Your task to perform on an android device: Go to privacy settings Image 0: 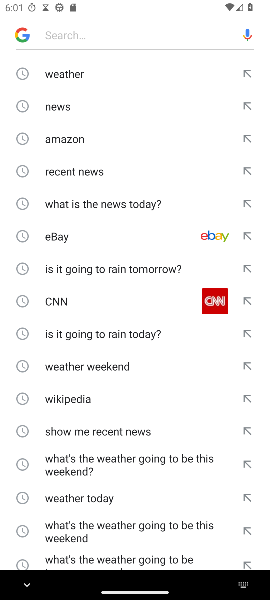
Step 0: press home button
Your task to perform on an android device: Go to privacy settings Image 1: 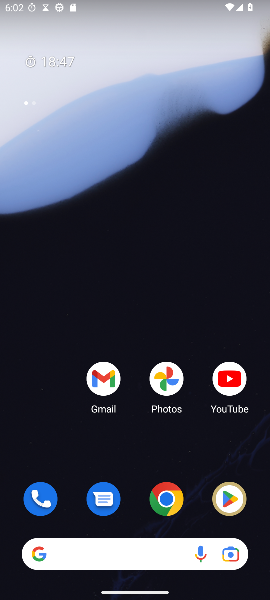
Step 1: drag from (158, 462) to (155, 91)
Your task to perform on an android device: Go to privacy settings Image 2: 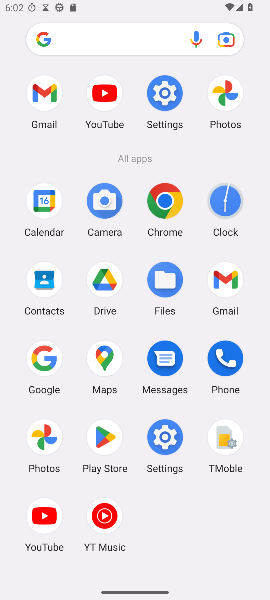
Step 2: click (164, 95)
Your task to perform on an android device: Go to privacy settings Image 3: 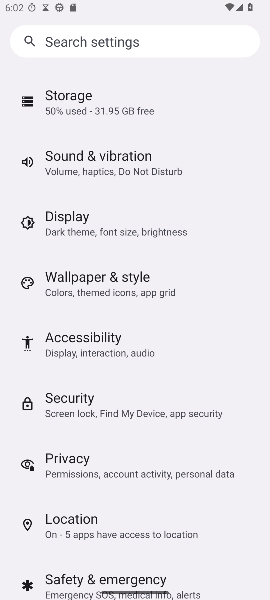
Step 3: click (71, 461)
Your task to perform on an android device: Go to privacy settings Image 4: 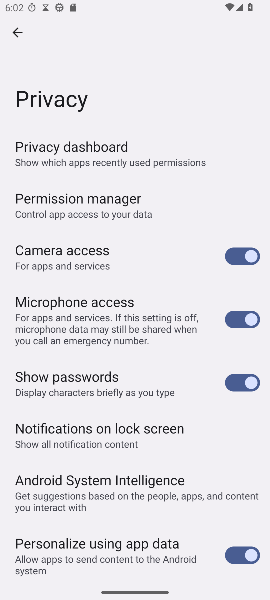
Step 4: task complete